Your task to perform on an android device: change the upload size in google photos Image 0: 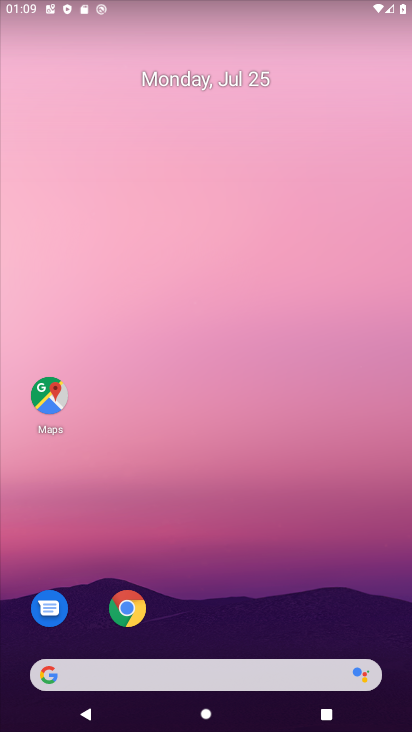
Step 0: drag from (207, 639) to (411, 510)
Your task to perform on an android device: change the upload size in google photos Image 1: 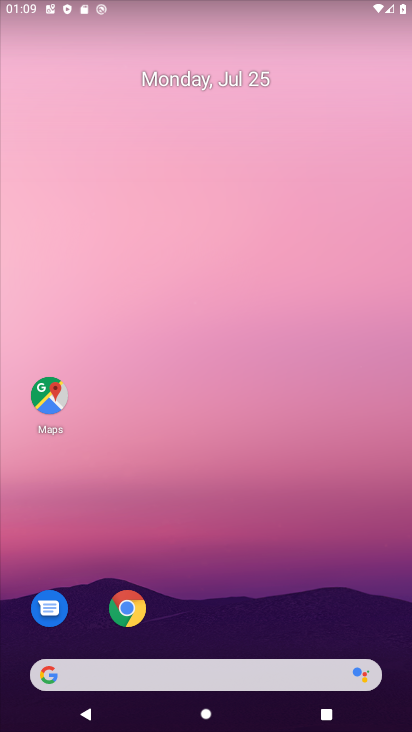
Step 1: drag from (272, 634) to (231, 100)
Your task to perform on an android device: change the upload size in google photos Image 2: 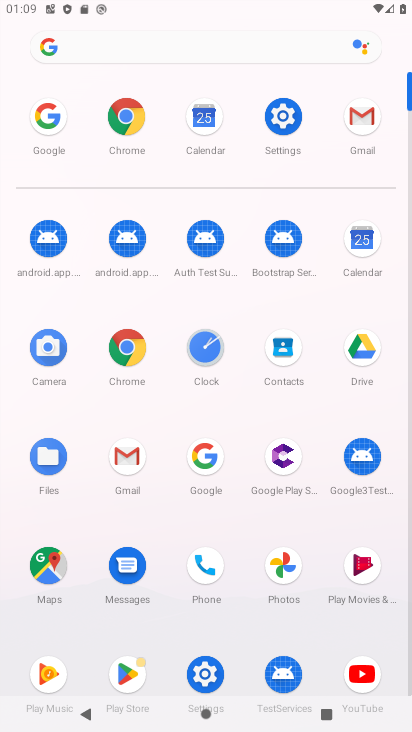
Step 2: click (289, 569)
Your task to perform on an android device: change the upload size in google photos Image 3: 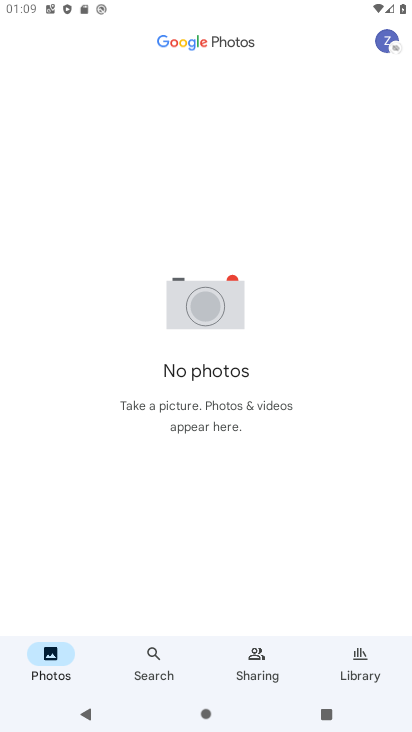
Step 3: click (381, 44)
Your task to perform on an android device: change the upload size in google photos Image 4: 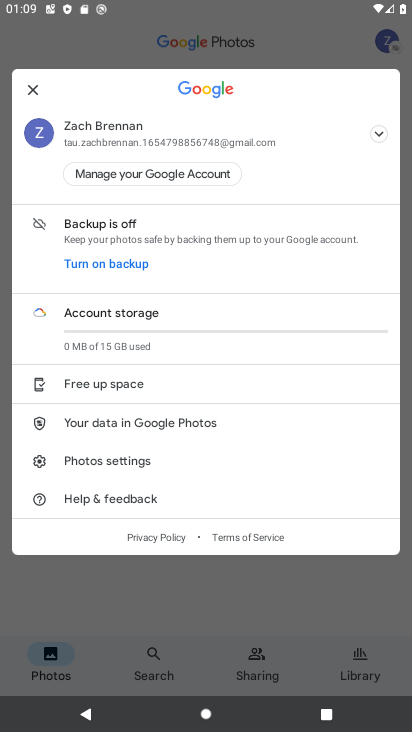
Step 4: click (117, 451)
Your task to perform on an android device: change the upload size in google photos Image 5: 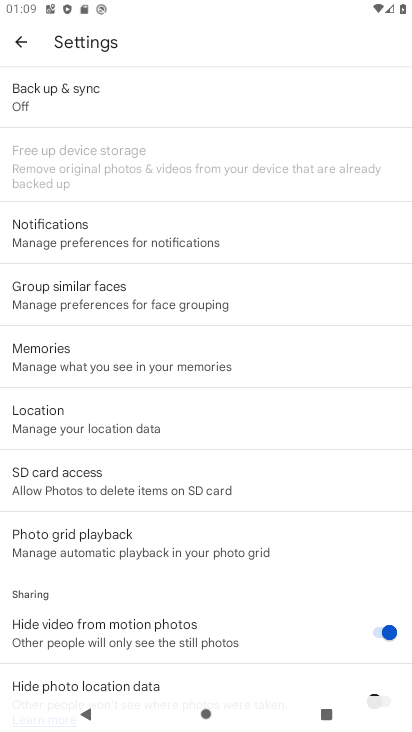
Step 5: drag from (139, 593) to (149, 138)
Your task to perform on an android device: change the upload size in google photos Image 6: 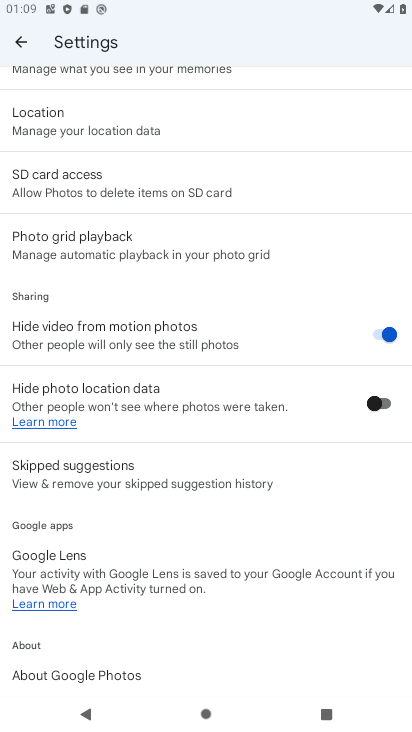
Step 6: click (24, 45)
Your task to perform on an android device: change the upload size in google photos Image 7: 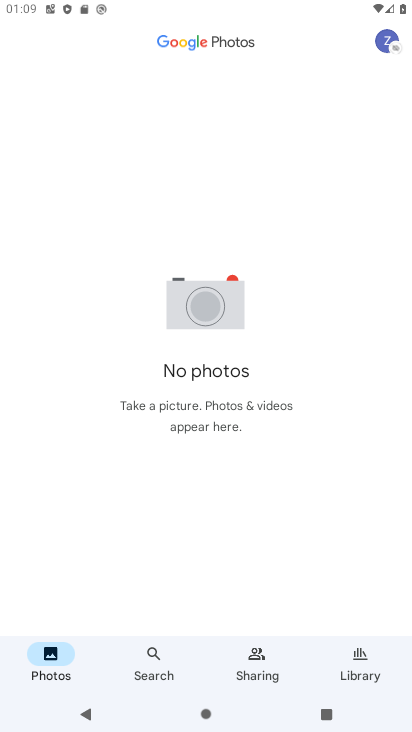
Step 7: click (387, 48)
Your task to perform on an android device: change the upload size in google photos Image 8: 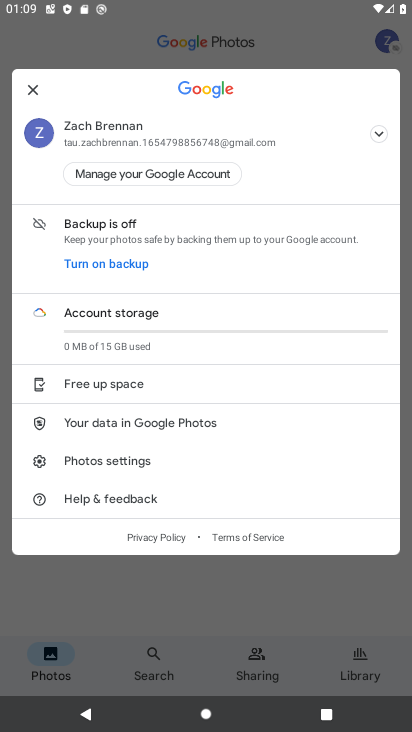
Step 8: click (94, 466)
Your task to perform on an android device: change the upload size in google photos Image 9: 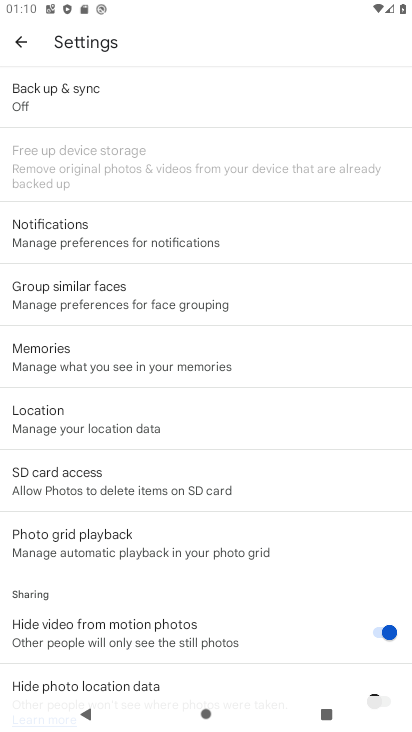
Step 9: task complete